Your task to perform on an android device: Search for the best rated 3d printer on Amazon. Image 0: 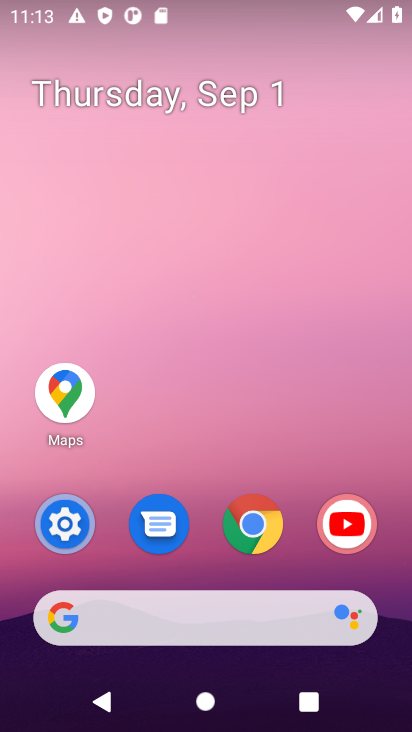
Step 0: click (264, 516)
Your task to perform on an android device: Search for the best rated 3d printer on Amazon. Image 1: 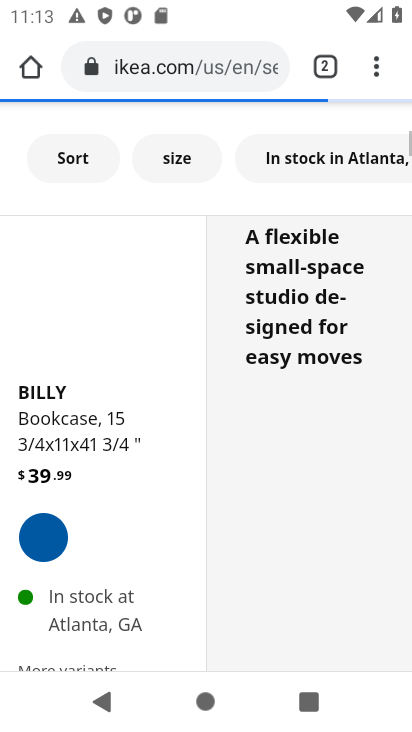
Step 1: click (332, 74)
Your task to perform on an android device: Search for the best rated 3d printer on Amazon. Image 2: 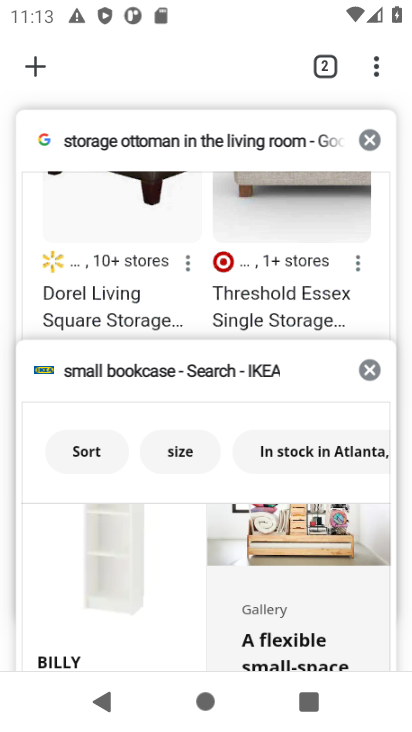
Step 2: click (34, 61)
Your task to perform on an android device: Search for the best rated 3d printer on Amazon. Image 3: 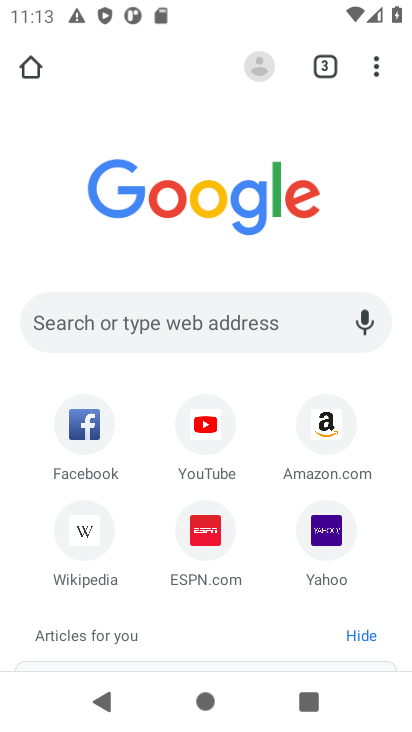
Step 3: click (324, 416)
Your task to perform on an android device: Search for the best rated 3d printer on Amazon. Image 4: 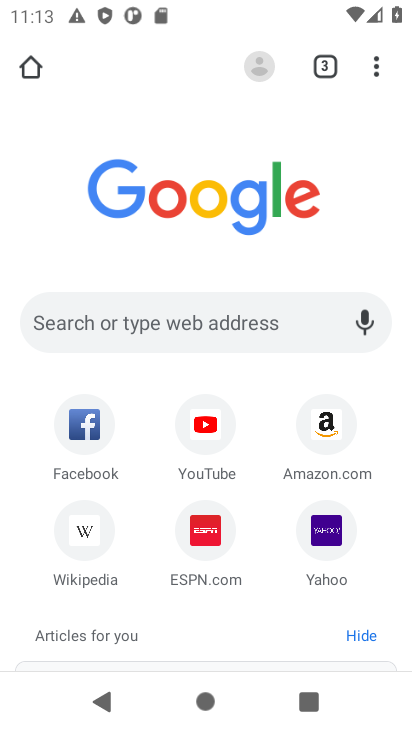
Step 4: click (324, 416)
Your task to perform on an android device: Search for the best rated 3d printer on Amazon. Image 5: 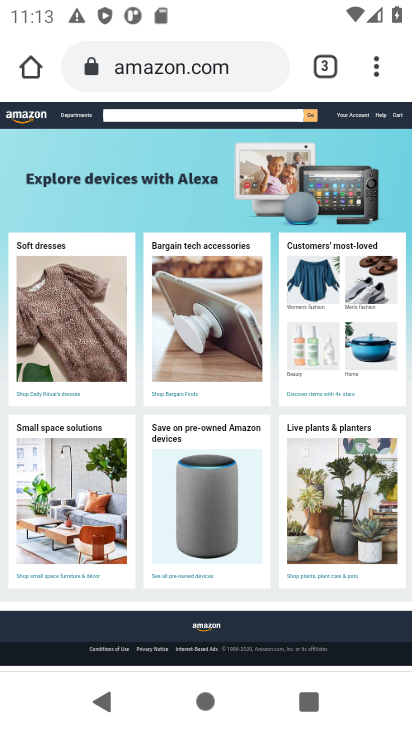
Step 5: click (249, 119)
Your task to perform on an android device: Search for the best rated 3d printer on Amazon. Image 6: 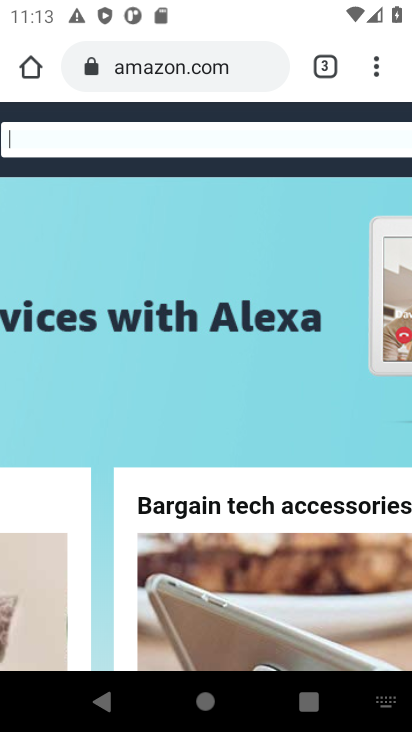
Step 6: click (229, 139)
Your task to perform on an android device: Search for the best rated 3d printer on Amazon. Image 7: 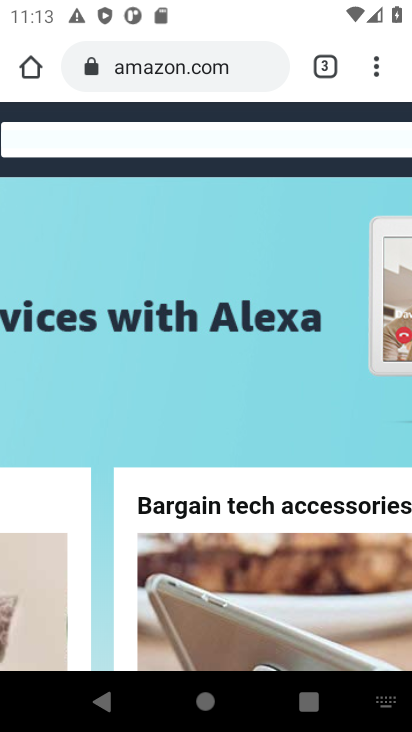
Step 7: type "best rated 3d printer"
Your task to perform on an android device: Search for the best rated 3d printer on Amazon. Image 8: 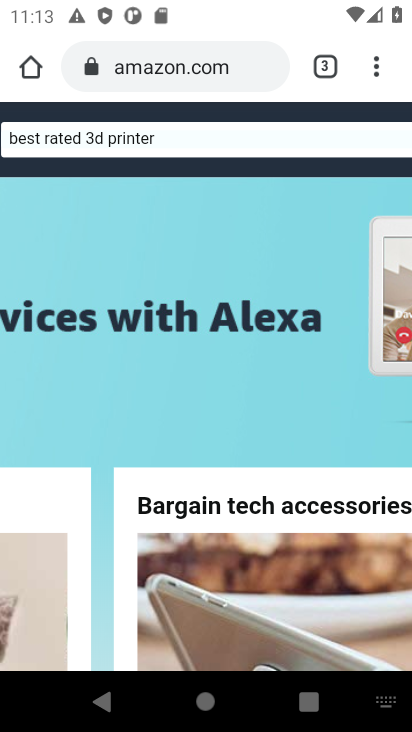
Step 8: drag from (315, 344) to (26, 345)
Your task to perform on an android device: Search for the best rated 3d printer on Amazon. Image 9: 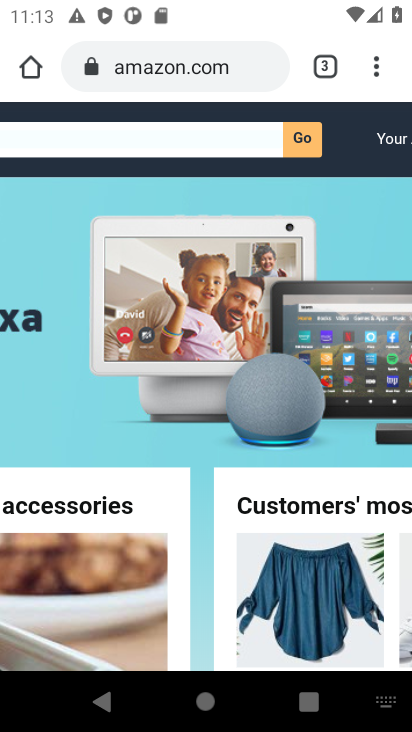
Step 9: click (308, 141)
Your task to perform on an android device: Search for the best rated 3d printer on Amazon. Image 10: 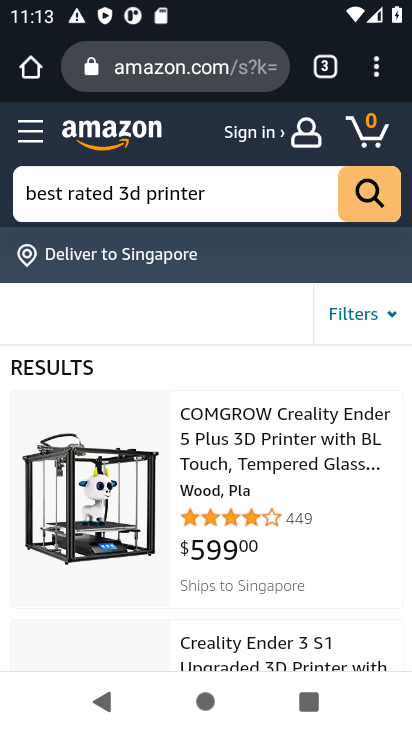
Step 10: task complete